Your task to perform on an android device: Open the web browser Image 0: 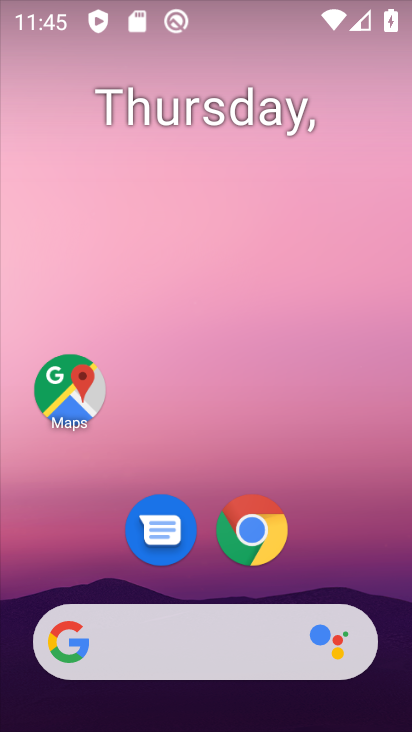
Step 0: click (253, 529)
Your task to perform on an android device: Open the web browser Image 1: 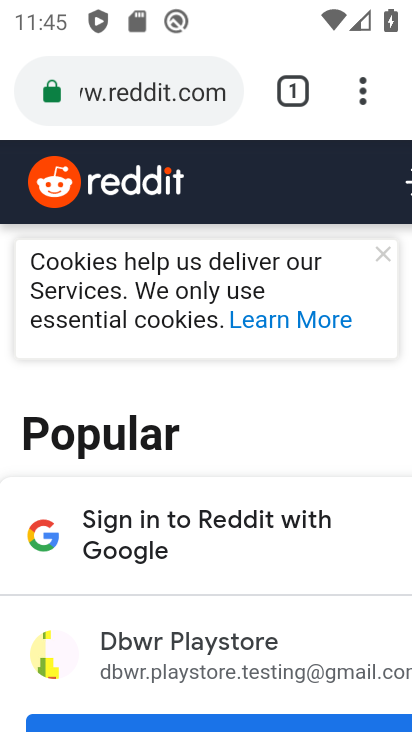
Step 1: task complete